Your task to perform on an android device: Go to Yahoo.com Image 0: 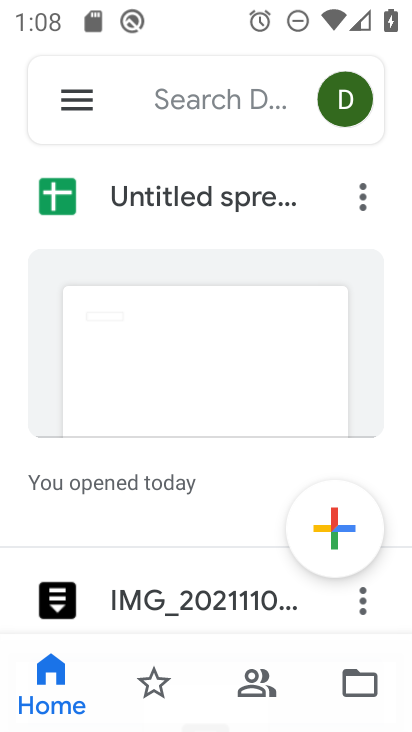
Step 0: press home button
Your task to perform on an android device: Go to Yahoo.com Image 1: 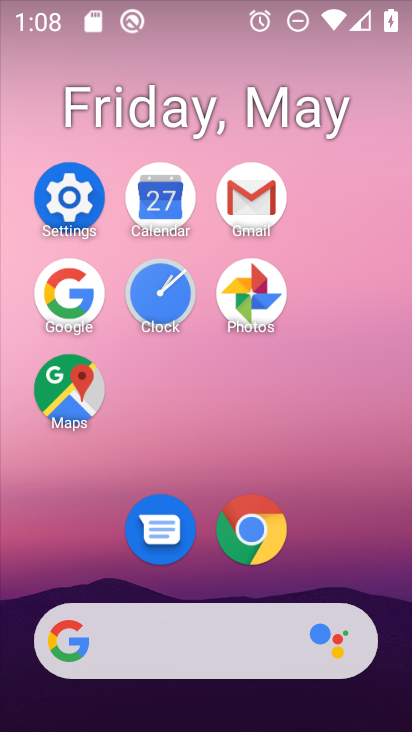
Step 1: click (274, 541)
Your task to perform on an android device: Go to Yahoo.com Image 2: 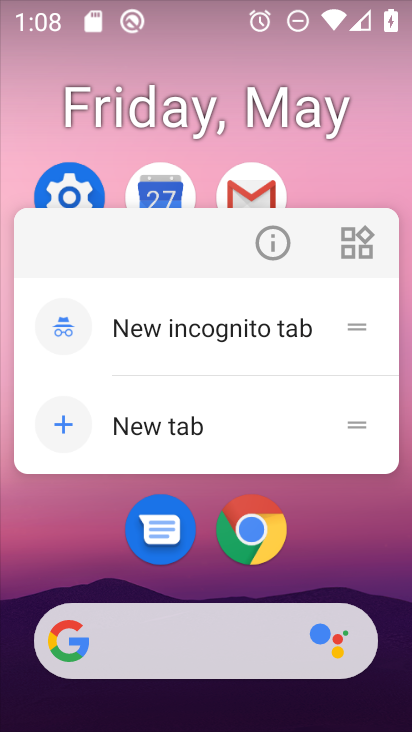
Step 2: click (277, 512)
Your task to perform on an android device: Go to Yahoo.com Image 3: 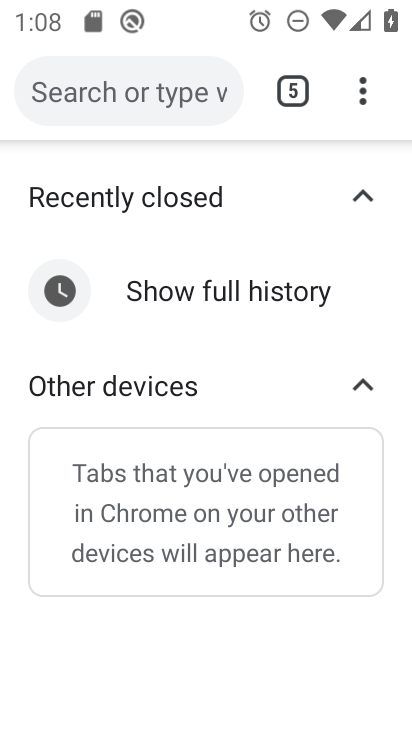
Step 3: click (305, 90)
Your task to perform on an android device: Go to Yahoo.com Image 4: 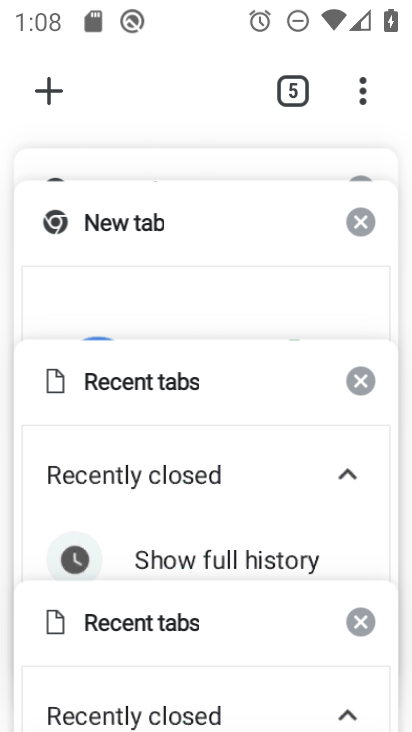
Step 4: click (173, 578)
Your task to perform on an android device: Go to Yahoo.com Image 5: 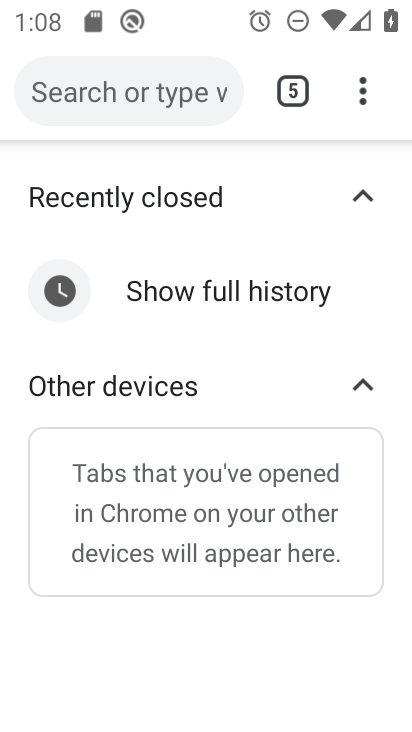
Step 5: click (278, 90)
Your task to perform on an android device: Go to Yahoo.com Image 6: 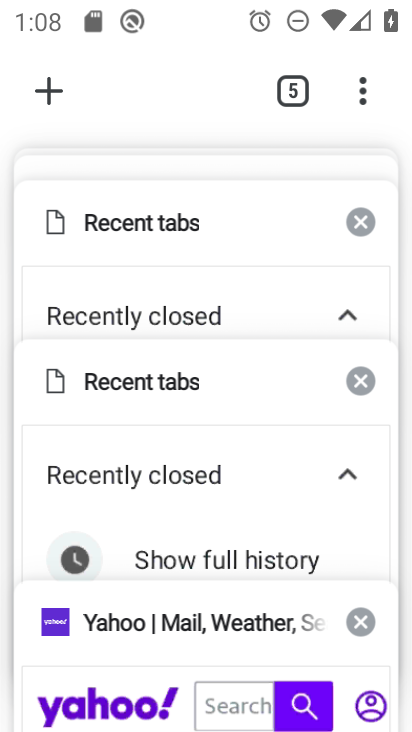
Step 6: click (76, 89)
Your task to perform on an android device: Go to Yahoo.com Image 7: 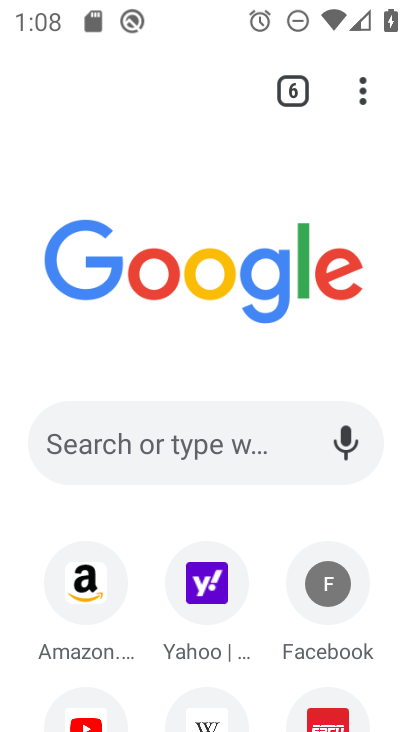
Step 7: click (184, 597)
Your task to perform on an android device: Go to Yahoo.com Image 8: 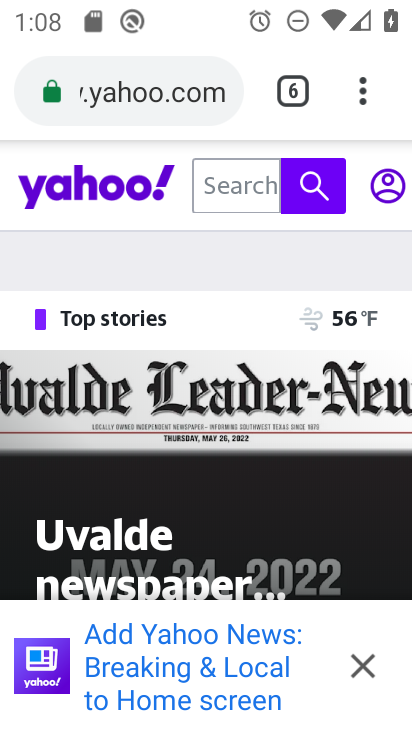
Step 8: task complete